Your task to perform on an android device: Go to accessibility settings Image 0: 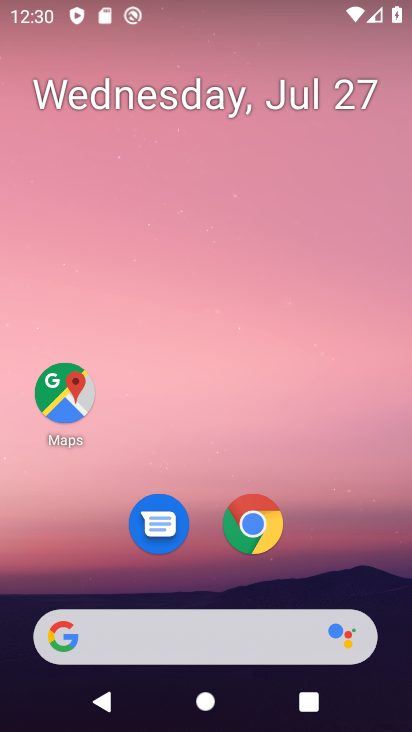
Step 0: drag from (339, 553) to (289, 58)
Your task to perform on an android device: Go to accessibility settings Image 1: 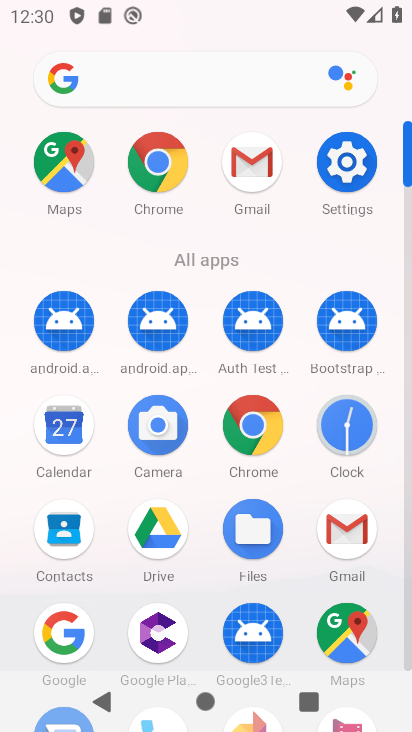
Step 1: click (341, 161)
Your task to perform on an android device: Go to accessibility settings Image 2: 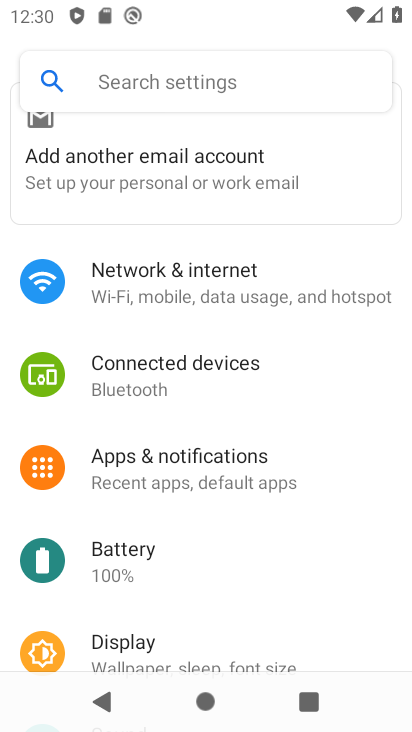
Step 2: drag from (245, 628) to (284, 21)
Your task to perform on an android device: Go to accessibility settings Image 3: 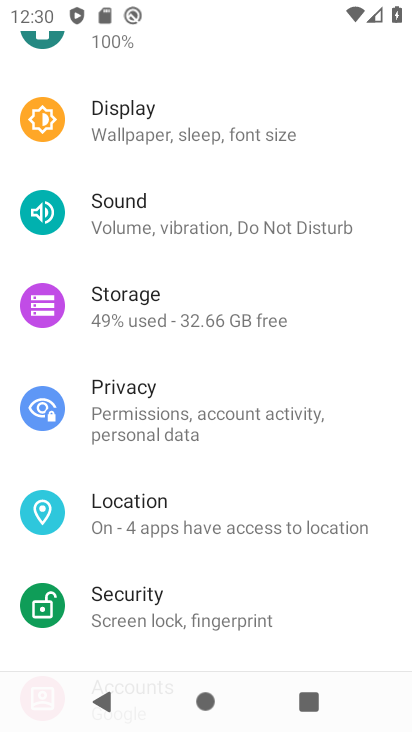
Step 3: drag from (237, 564) to (289, 67)
Your task to perform on an android device: Go to accessibility settings Image 4: 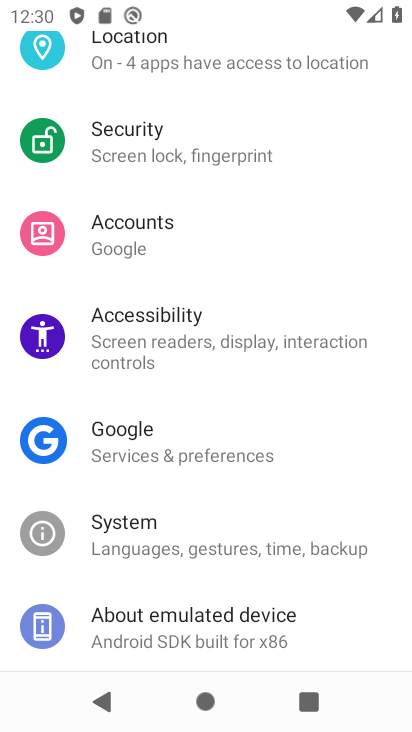
Step 4: click (197, 331)
Your task to perform on an android device: Go to accessibility settings Image 5: 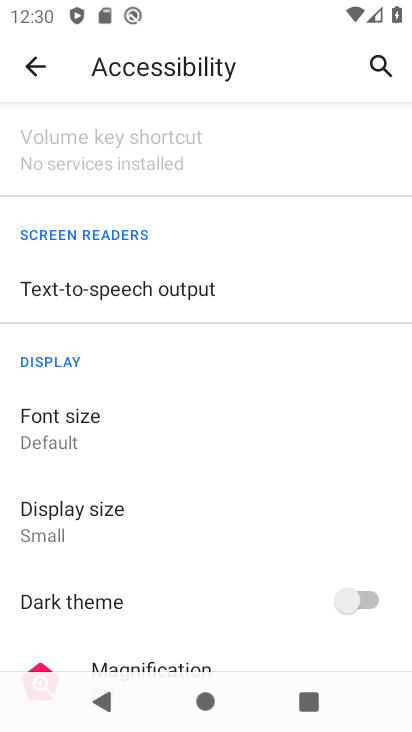
Step 5: task complete